Your task to perform on an android device: turn on notifications settings in the gmail app Image 0: 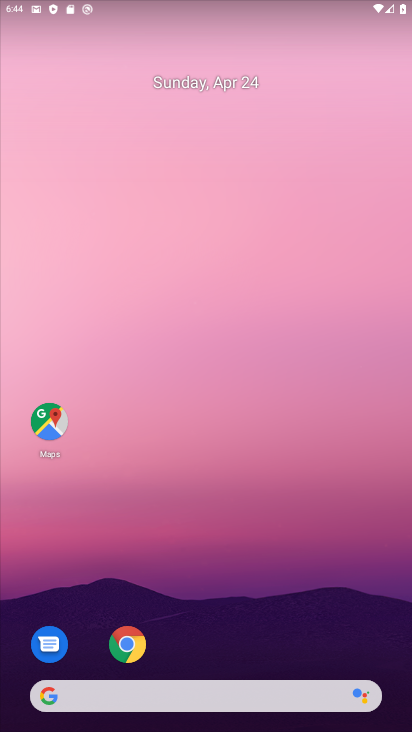
Step 0: drag from (200, 636) to (205, 224)
Your task to perform on an android device: turn on notifications settings in the gmail app Image 1: 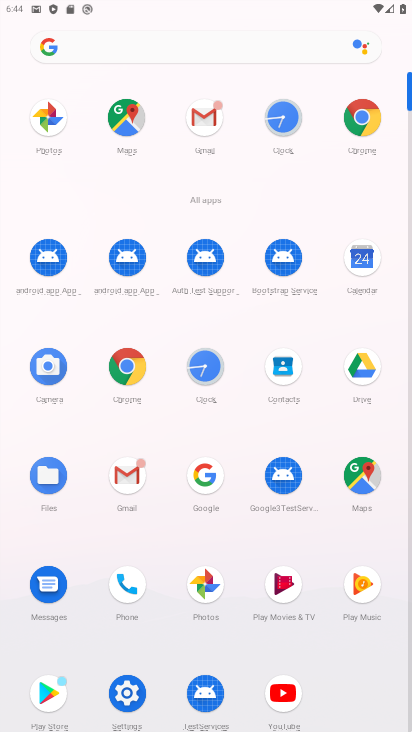
Step 1: click (120, 472)
Your task to perform on an android device: turn on notifications settings in the gmail app Image 2: 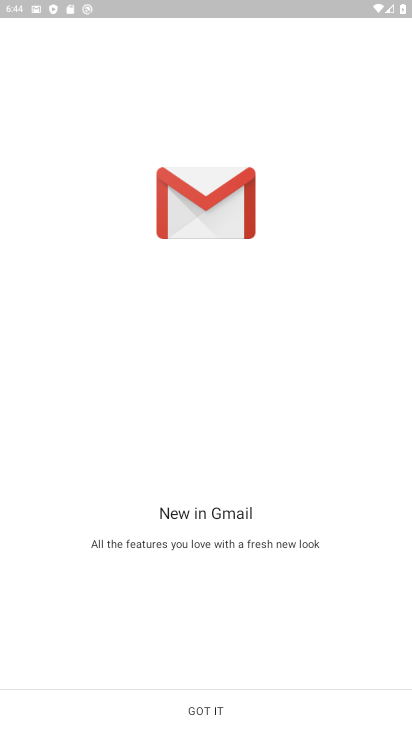
Step 2: click (221, 710)
Your task to perform on an android device: turn on notifications settings in the gmail app Image 3: 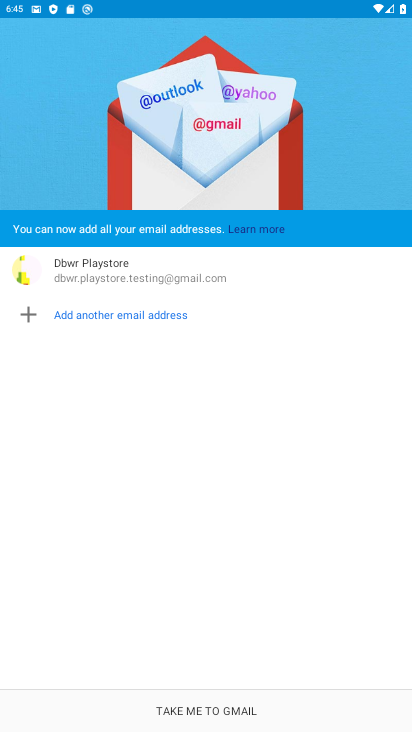
Step 3: click (210, 705)
Your task to perform on an android device: turn on notifications settings in the gmail app Image 4: 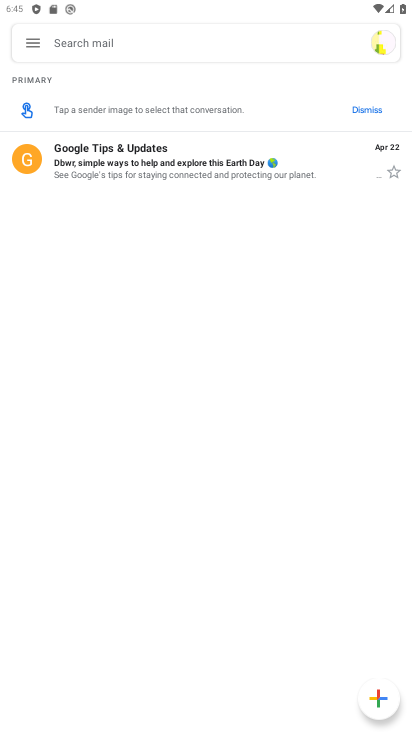
Step 4: click (25, 36)
Your task to perform on an android device: turn on notifications settings in the gmail app Image 5: 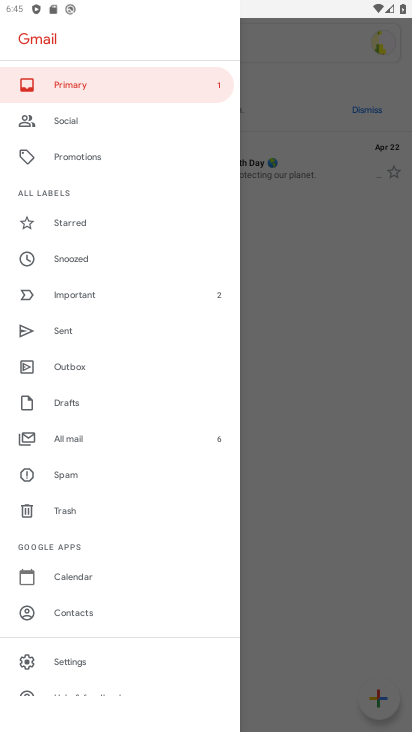
Step 5: click (88, 656)
Your task to perform on an android device: turn on notifications settings in the gmail app Image 6: 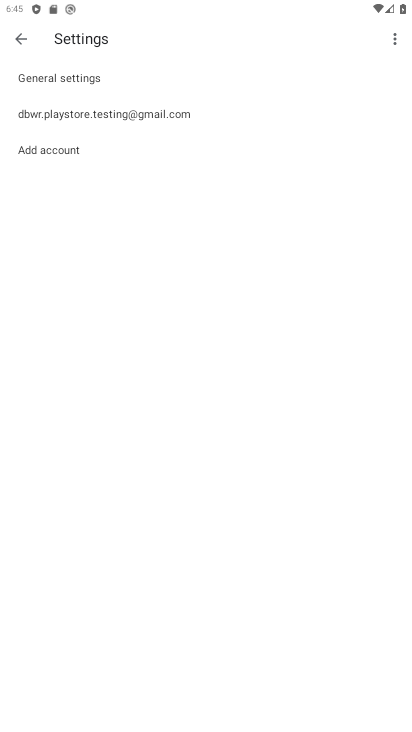
Step 6: click (74, 70)
Your task to perform on an android device: turn on notifications settings in the gmail app Image 7: 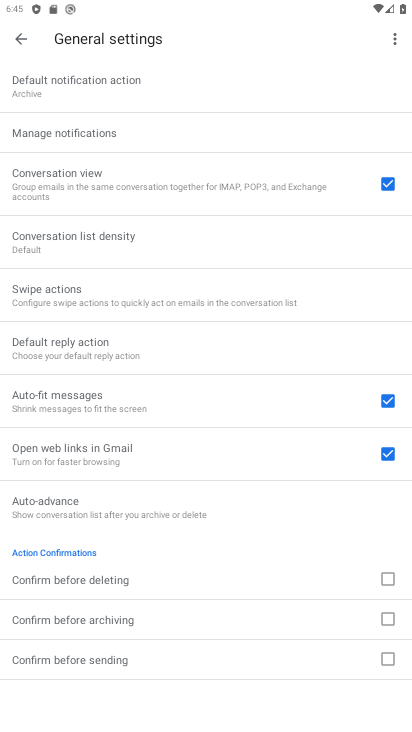
Step 7: click (87, 130)
Your task to perform on an android device: turn on notifications settings in the gmail app Image 8: 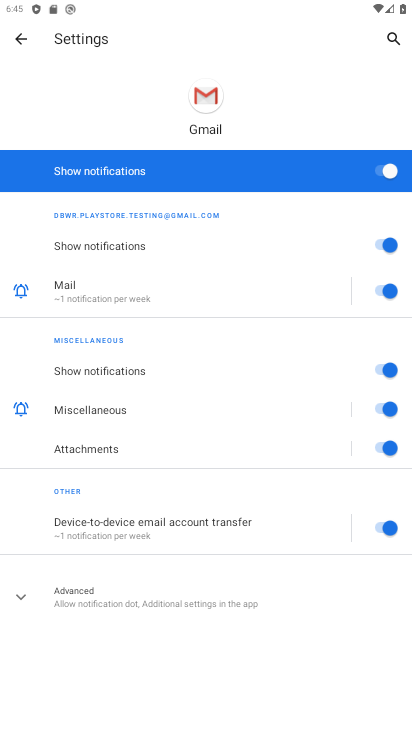
Step 8: task complete